Your task to perform on an android device: create a new album in the google photos Image 0: 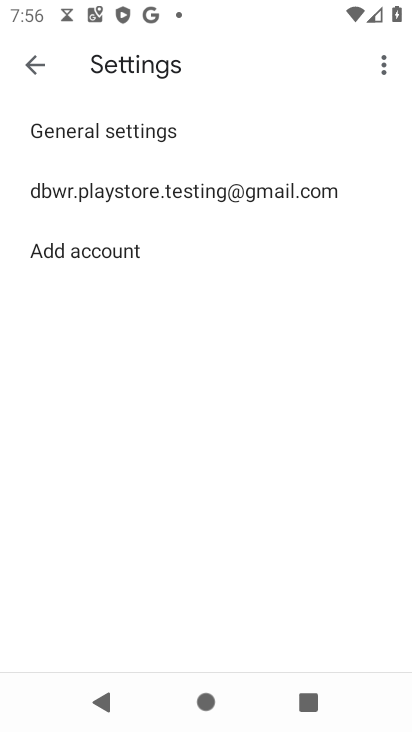
Step 0: press home button
Your task to perform on an android device: create a new album in the google photos Image 1: 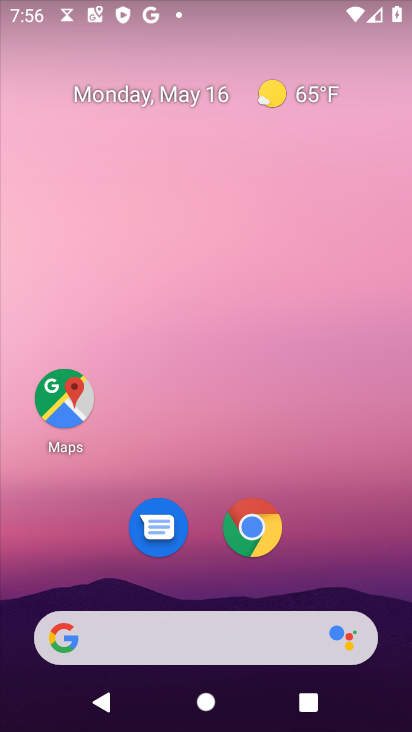
Step 1: drag from (385, 588) to (346, 206)
Your task to perform on an android device: create a new album in the google photos Image 2: 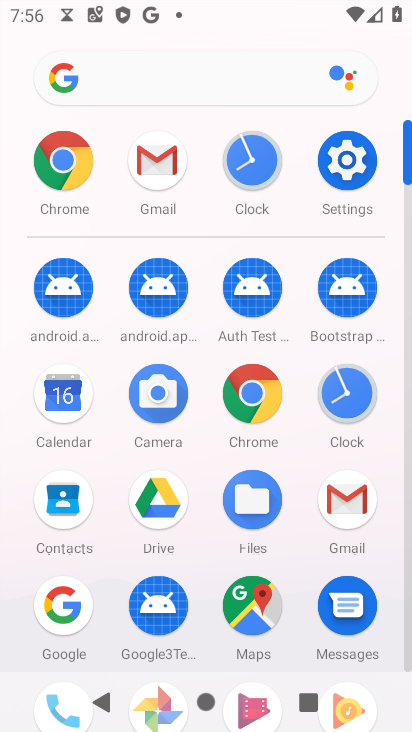
Step 2: drag from (172, 595) to (189, 385)
Your task to perform on an android device: create a new album in the google photos Image 3: 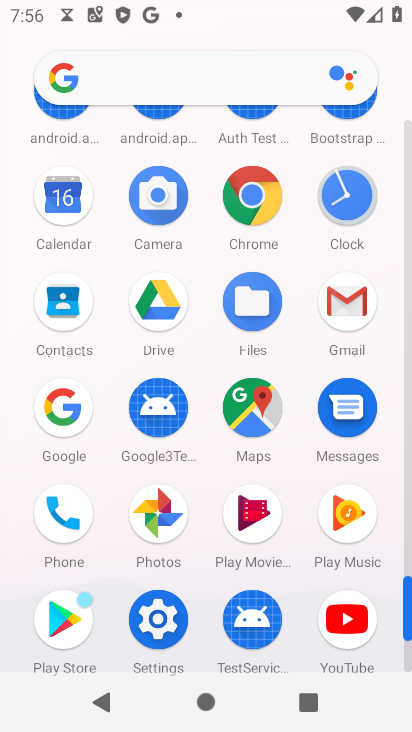
Step 3: click (151, 501)
Your task to perform on an android device: create a new album in the google photos Image 4: 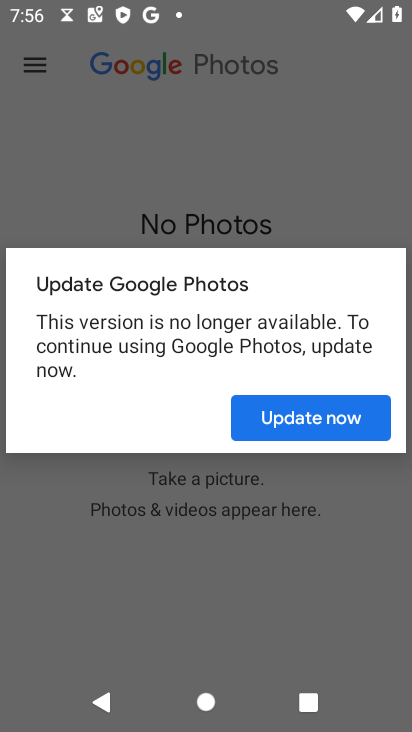
Step 4: click (339, 407)
Your task to perform on an android device: create a new album in the google photos Image 5: 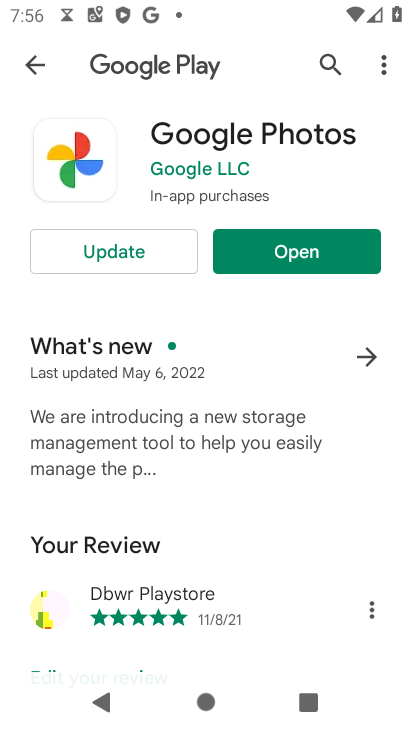
Step 5: press back button
Your task to perform on an android device: create a new album in the google photos Image 6: 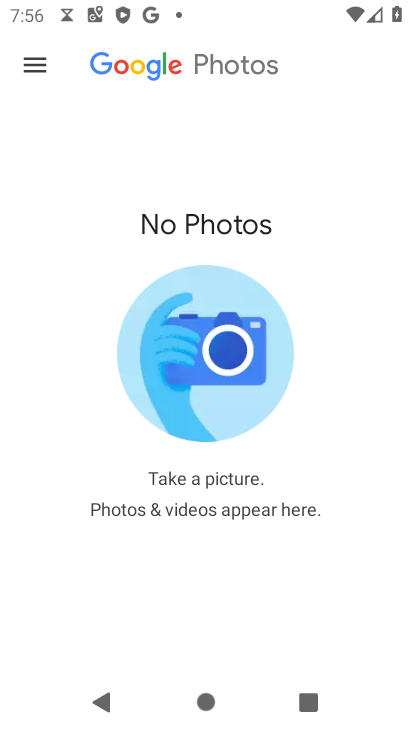
Step 6: click (39, 60)
Your task to perform on an android device: create a new album in the google photos Image 7: 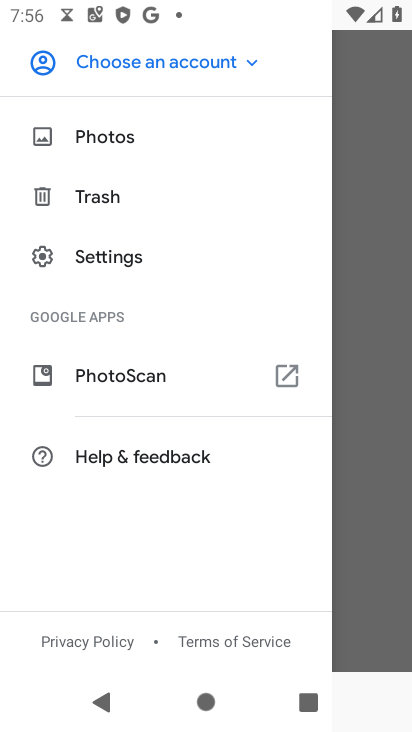
Step 7: click (386, 439)
Your task to perform on an android device: create a new album in the google photos Image 8: 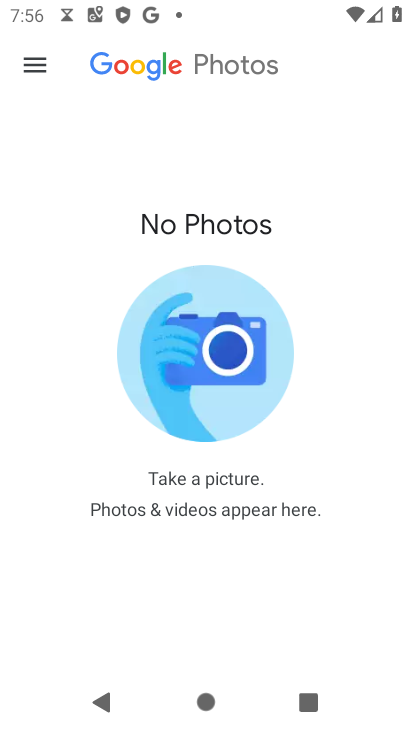
Step 8: click (114, 697)
Your task to perform on an android device: create a new album in the google photos Image 9: 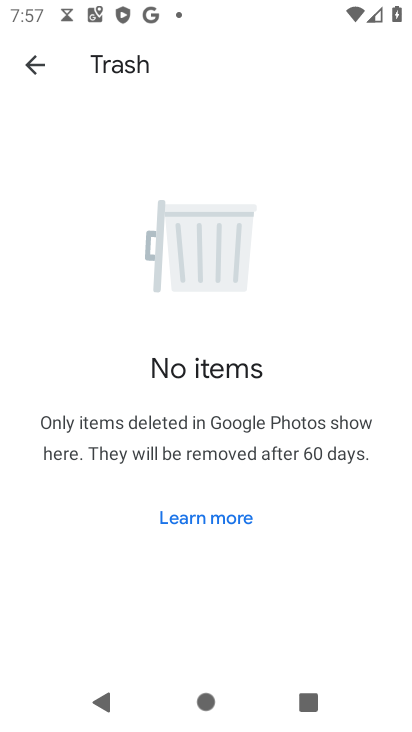
Step 9: click (210, 516)
Your task to perform on an android device: create a new album in the google photos Image 10: 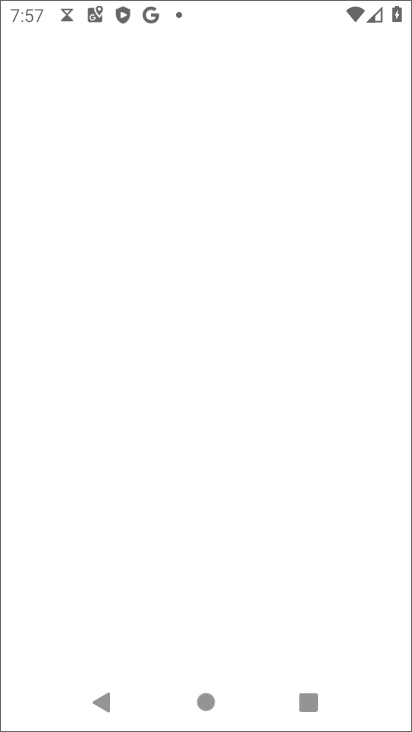
Step 10: click (43, 66)
Your task to perform on an android device: create a new album in the google photos Image 11: 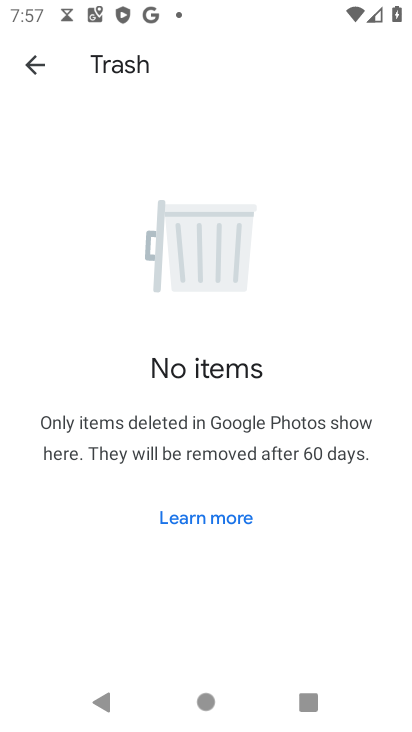
Step 11: click (38, 67)
Your task to perform on an android device: create a new album in the google photos Image 12: 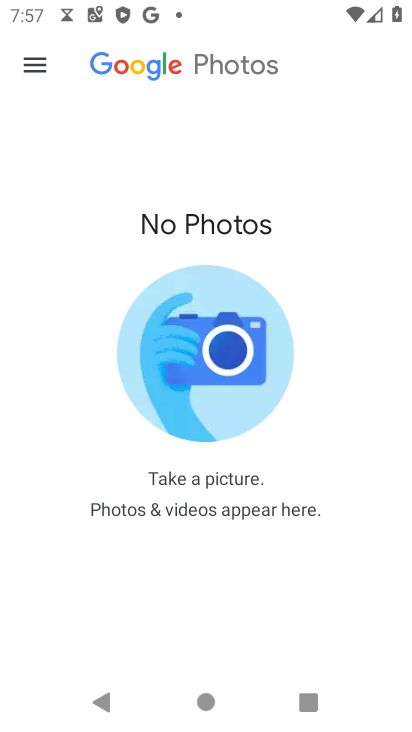
Step 12: click (35, 58)
Your task to perform on an android device: create a new album in the google photos Image 13: 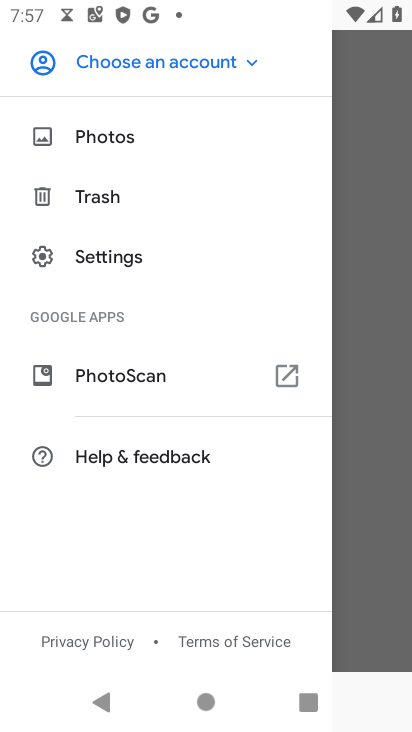
Step 13: click (114, 142)
Your task to perform on an android device: create a new album in the google photos Image 14: 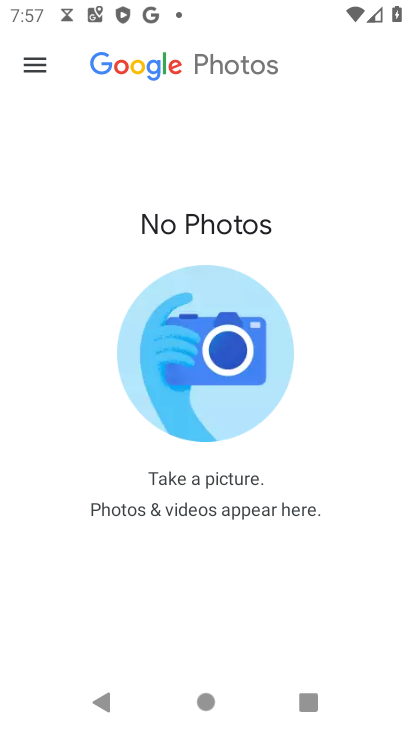
Step 14: click (22, 54)
Your task to perform on an android device: create a new album in the google photos Image 15: 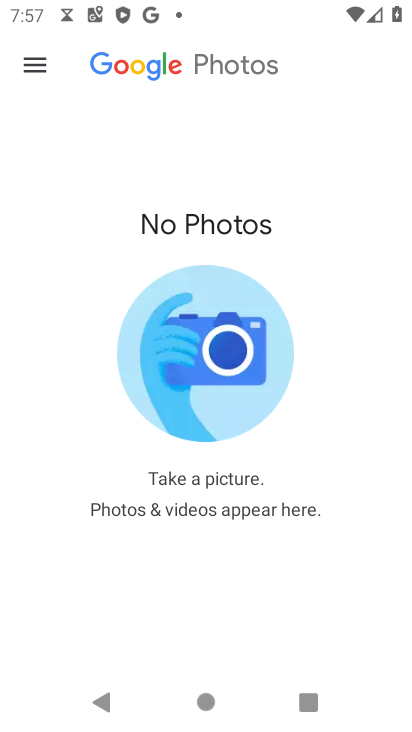
Step 15: click (38, 56)
Your task to perform on an android device: create a new album in the google photos Image 16: 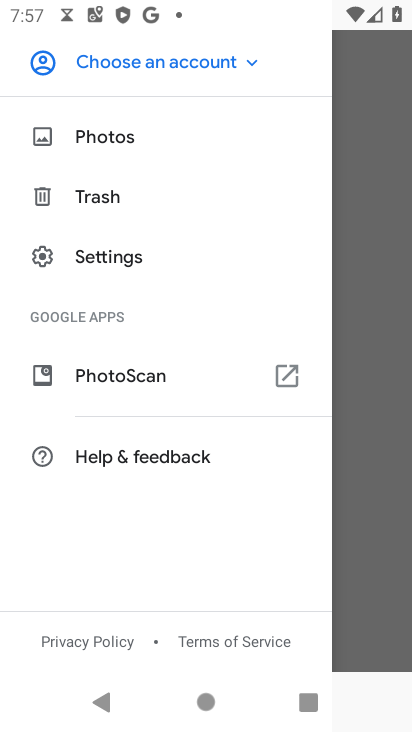
Step 16: click (110, 127)
Your task to perform on an android device: create a new album in the google photos Image 17: 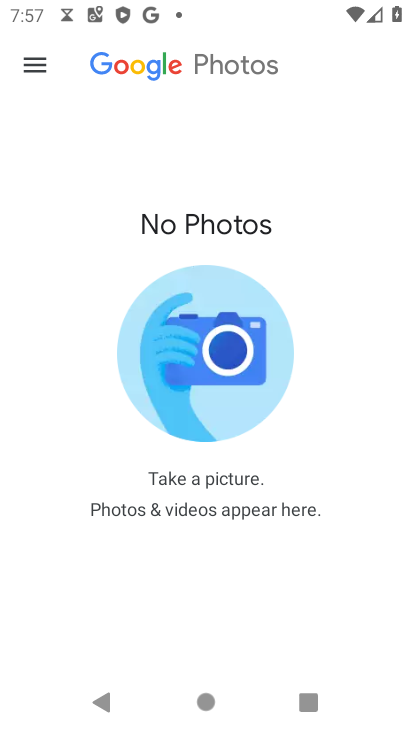
Step 17: click (25, 62)
Your task to perform on an android device: create a new album in the google photos Image 18: 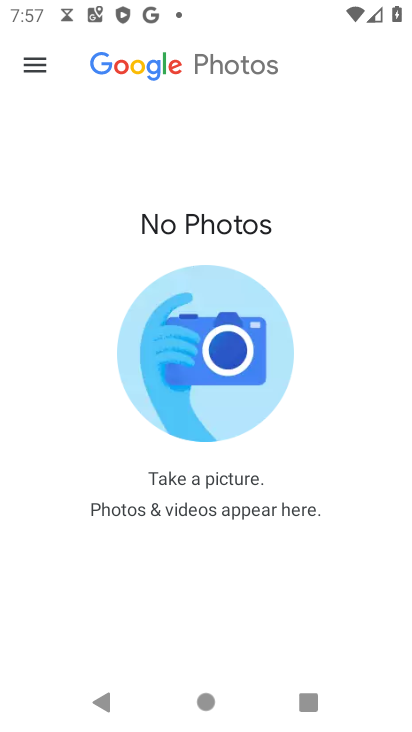
Step 18: click (196, 400)
Your task to perform on an android device: create a new album in the google photos Image 19: 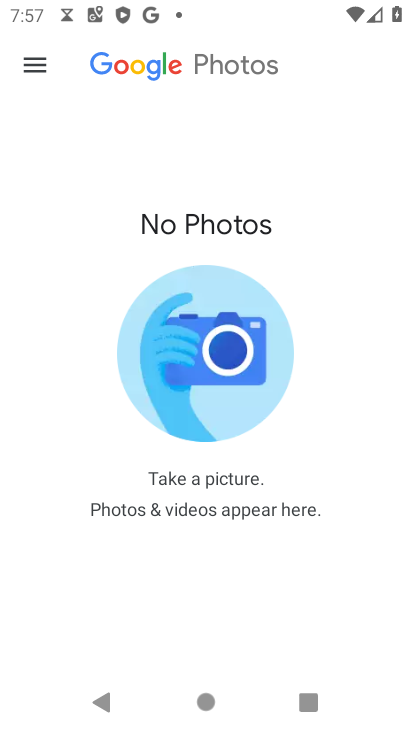
Step 19: click (27, 59)
Your task to perform on an android device: create a new album in the google photos Image 20: 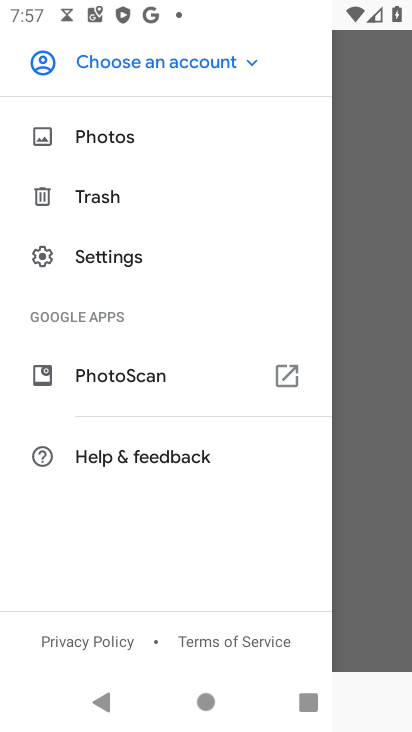
Step 20: click (401, 268)
Your task to perform on an android device: create a new album in the google photos Image 21: 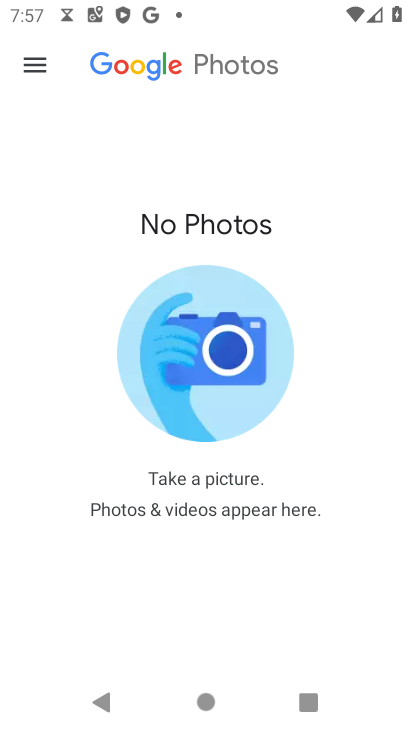
Step 21: task complete